Your task to perform on an android device: set the stopwatch Image 0: 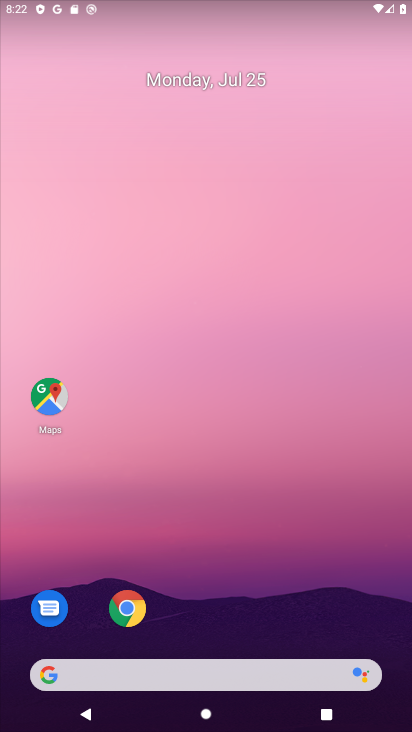
Step 0: drag from (180, 624) to (196, 116)
Your task to perform on an android device: set the stopwatch Image 1: 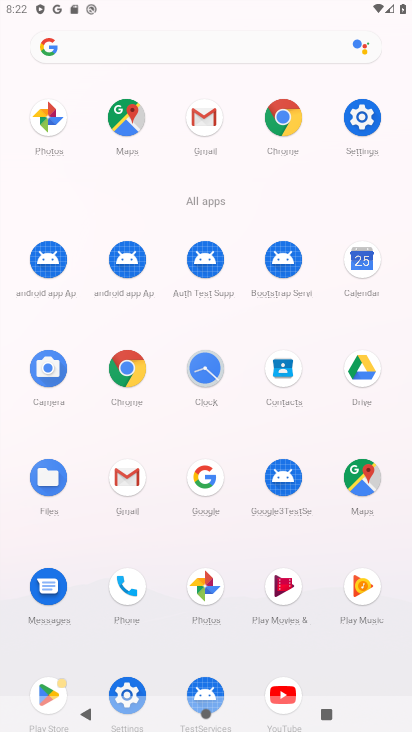
Step 1: click (198, 356)
Your task to perform on an android device: set the stopwatch Image 2: 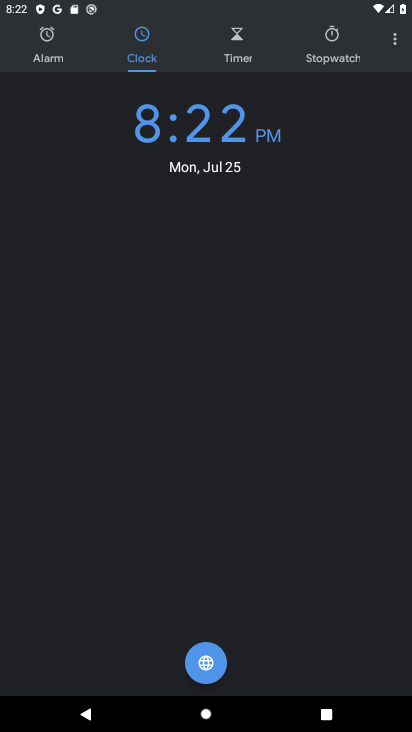
Step 2: click (341, 42)
Your task to perform on an android device: set the stopwatch Image 3: 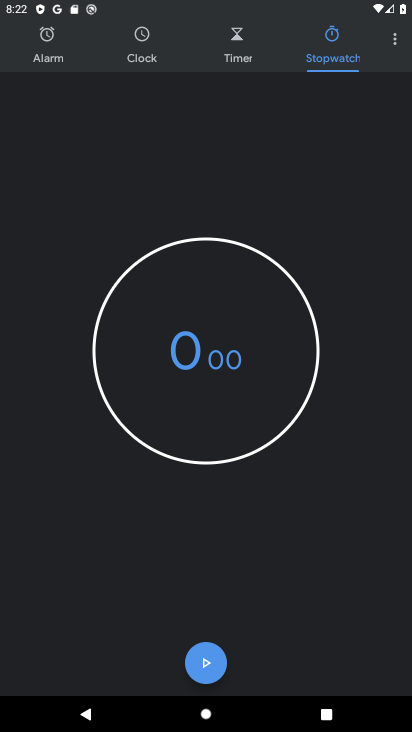
Step 3: task complete